Your task to perform on an android device: search for starred emails in the gmail app Image 0: 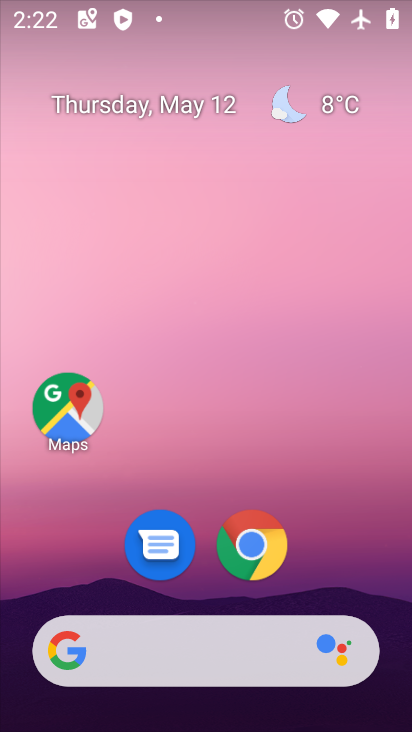
Step 0: drag from (399, 620) to (311, 56)
Your task to perform on an android device: search for starred emails in the gmail app Image 1: 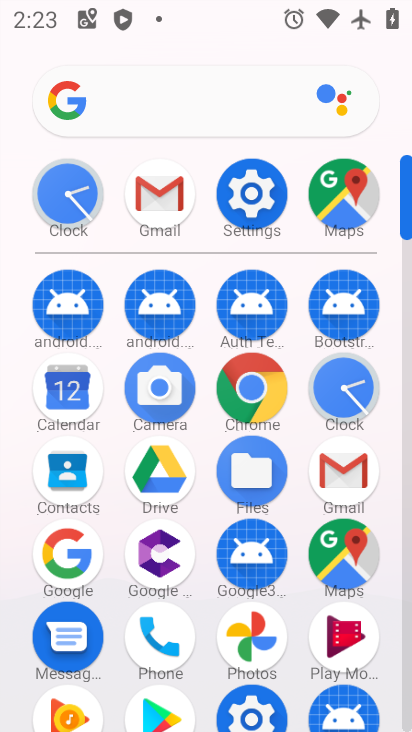
Step 1: click (409, 681)
Your task to perform on an android device: search for starred emails in the gmail app Image 2: 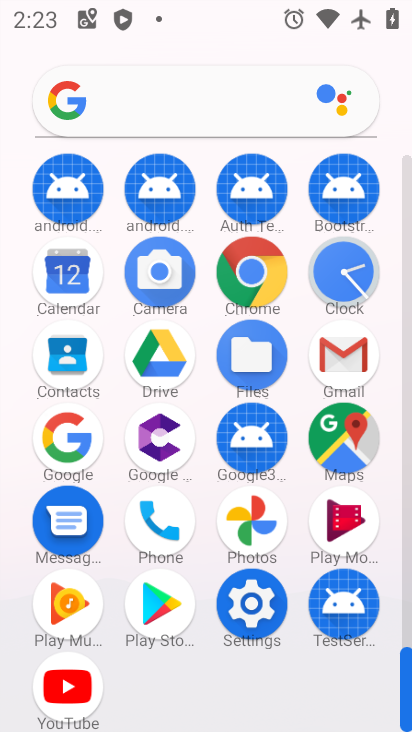
Step 2: click (338, 352)
Your task to perform on an android device: search for starred emails in the gmail app Image 3: 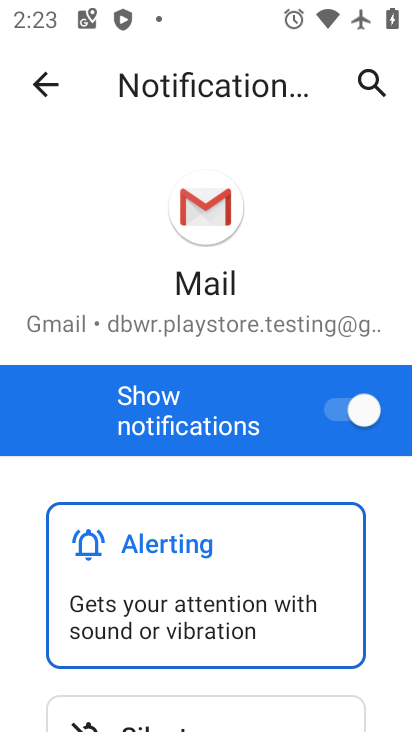
Step 3: press back button
Your task to perform on an android device: search for starred emails in the gmail app Image 4: 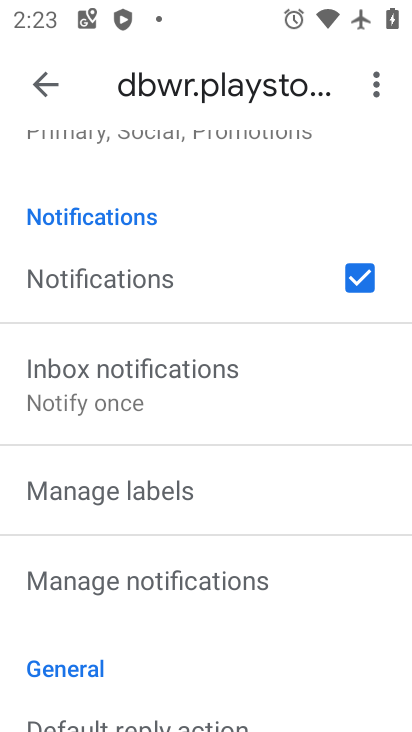
Step 4: press back button
Your task to perform on an android device: search for starred emails in the gmail app Image 5: 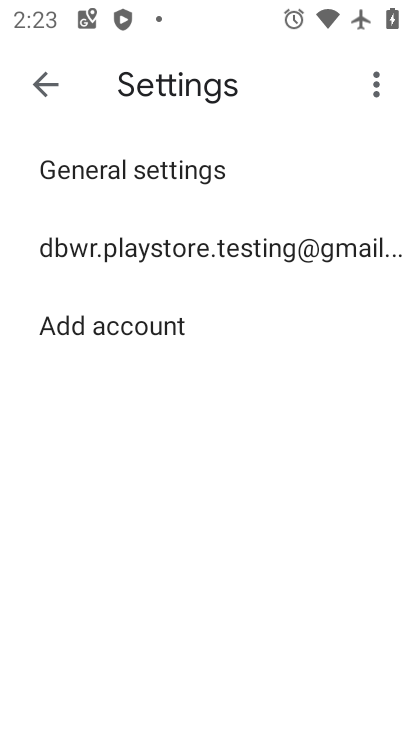
Step 5: press back button
Your task to perform on an android device: search for starred emails in the gmail app Image 6: 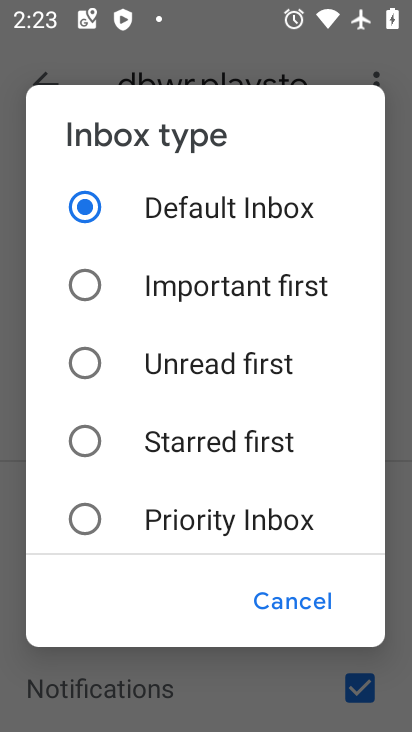
Step 6: press back button
Your task to perform on an android device: search for starred emails in the gmail app Image 7: 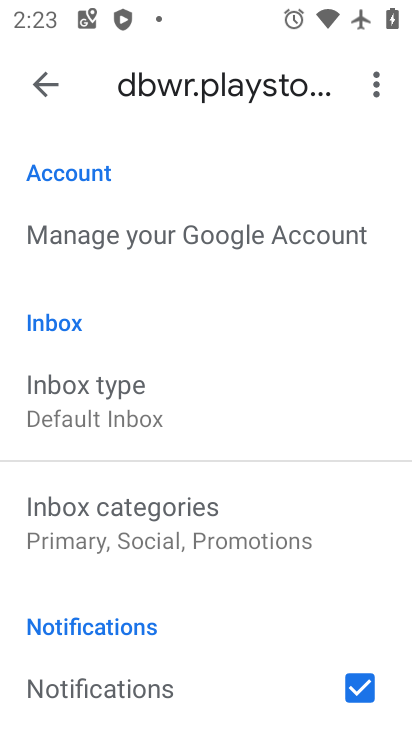
Step 7: press back button
Your task to perform on an android device: search for starred emails in the gmail app Image 8: 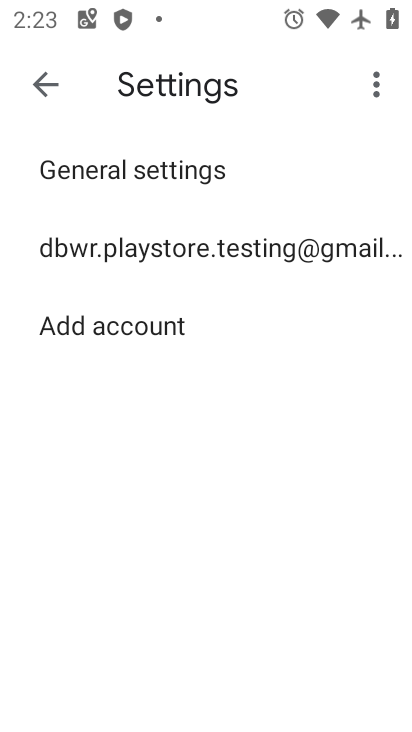
Step 8: press back button
Your task to perform on an android device: search for starred emails in the gmail app Image 9: 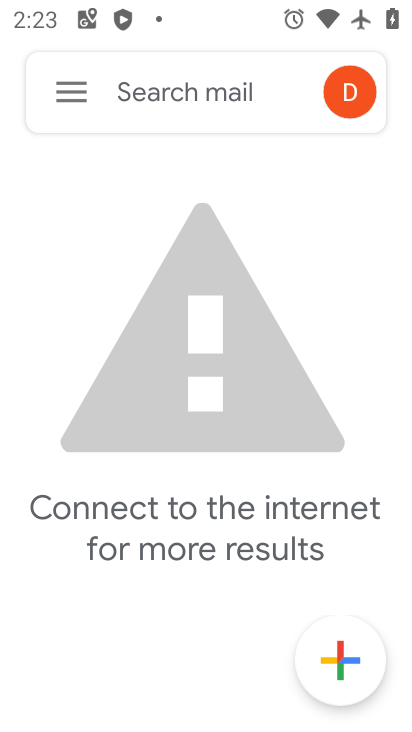
Step 9: click (75, 91)
Your task to perform on an android device: search for starred emails in the gmail app Image 10: 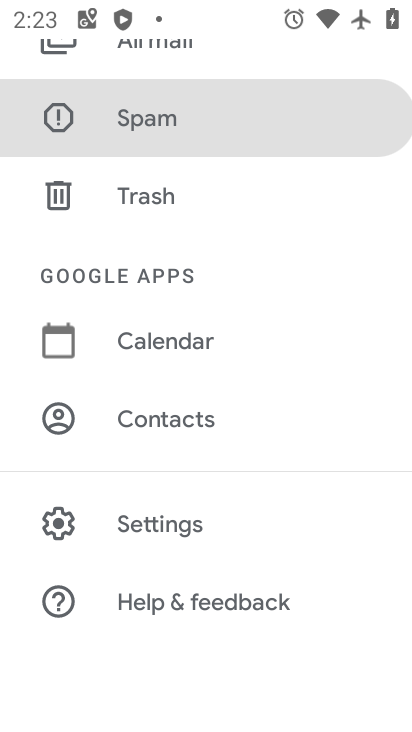
Step 10: drag from (281, 324) to (275, 475)
Your task to perform on an android device: search for starred emails in the gmail app Image 11: 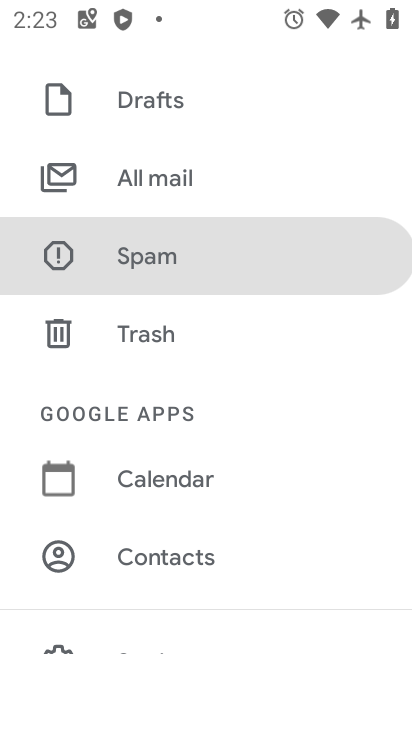
Step 11: drag from (291, 185) to (263, 505)
Your task to perform on an android device: search for starred emails in the gmail app Image 12: 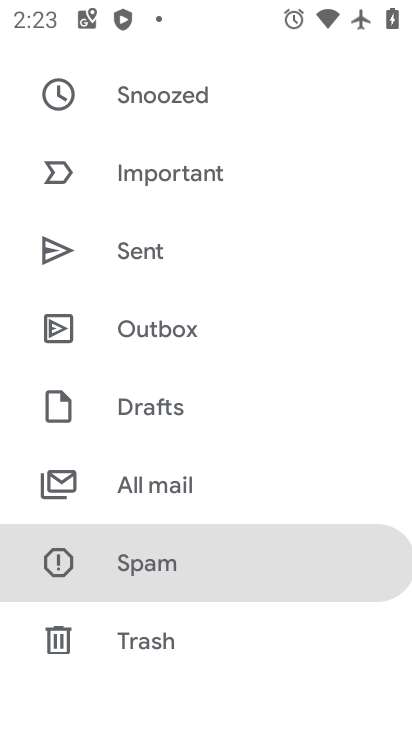
Step 12: drag from (280, 215) to (239, 462)
Your task to perform on an android device: search for starred emails in the gmail app Image 13: 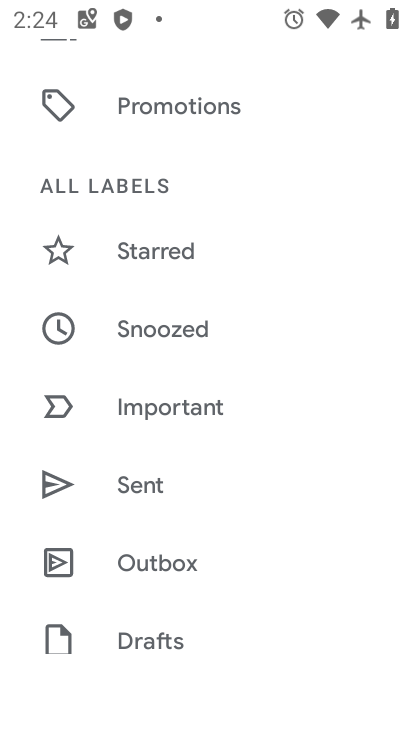
Step 13: click (126, 250)
Your task to perform on an android device: search for starred emails in the gmail app Image 14: 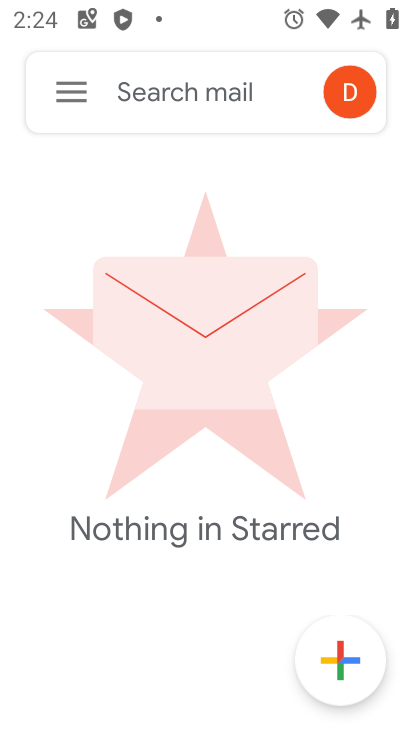
Step 14: task complete